Your task to perform on an android device: install app "Grab" Image 0: 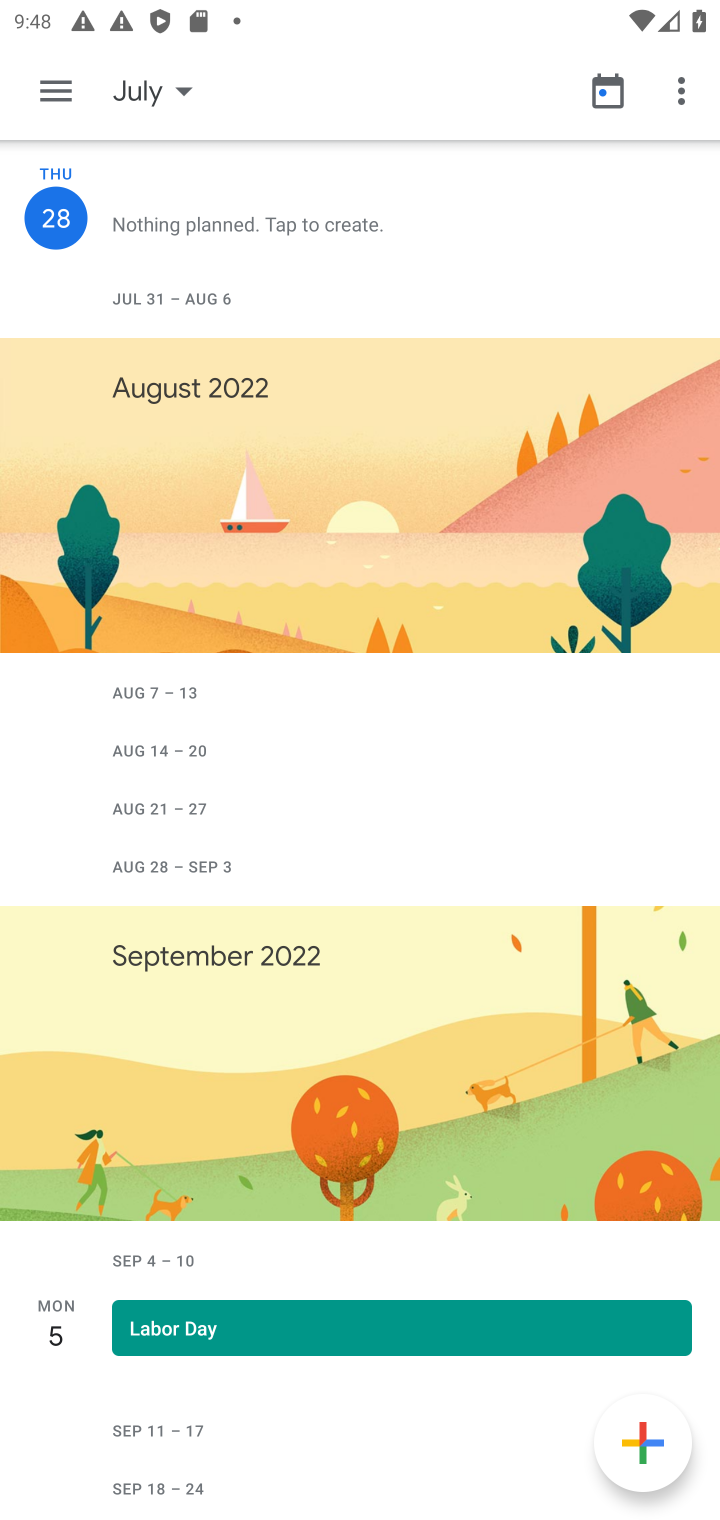
Step 0: press home button
Your task to perform on an android device: install app "Grab" Image 1: 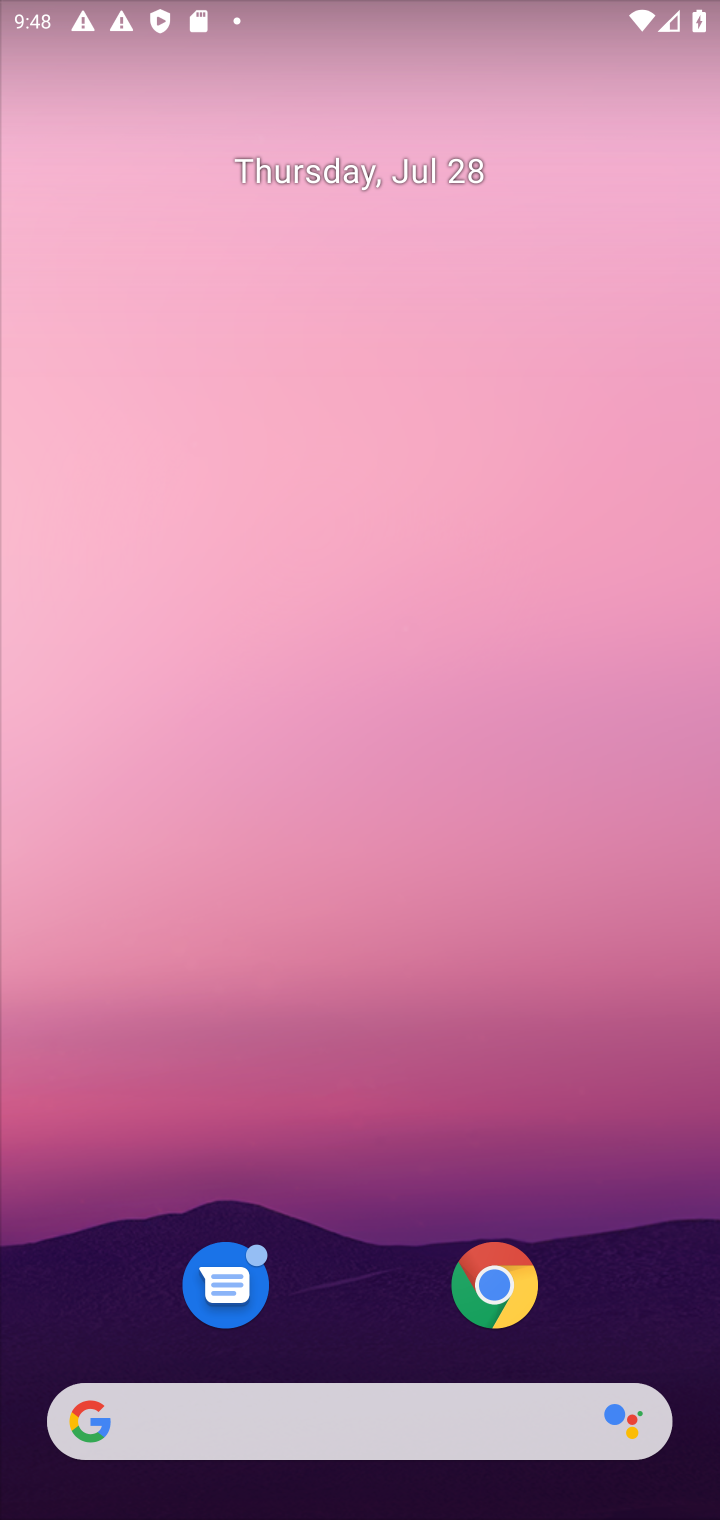
Step 1: drag from (439, 594) to (296, 27)
Your task to perform on an android device: install app "Grab" Image 2: 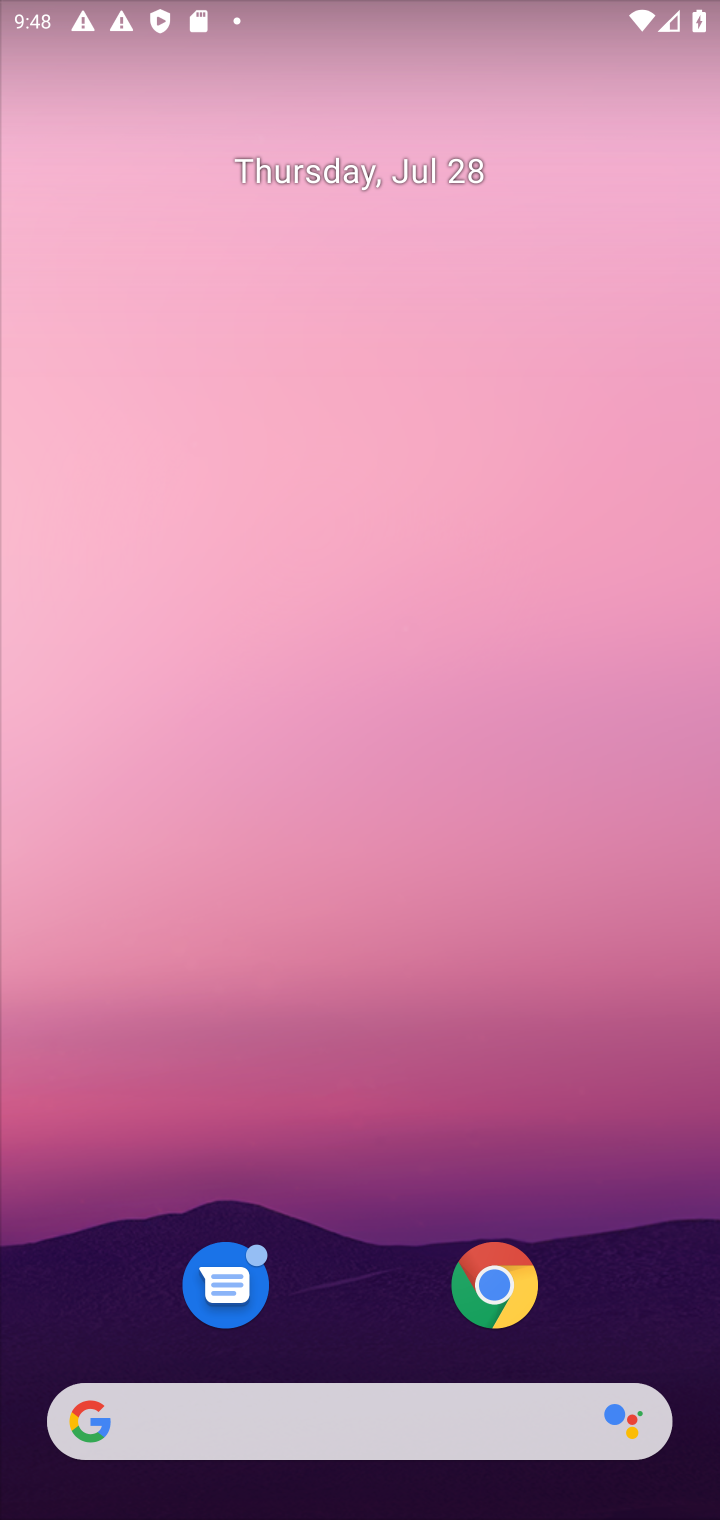
Step 2: drag from (401, 995) to (419, 4)
Your task to perform on an android device: install app "Grab" Image 3: 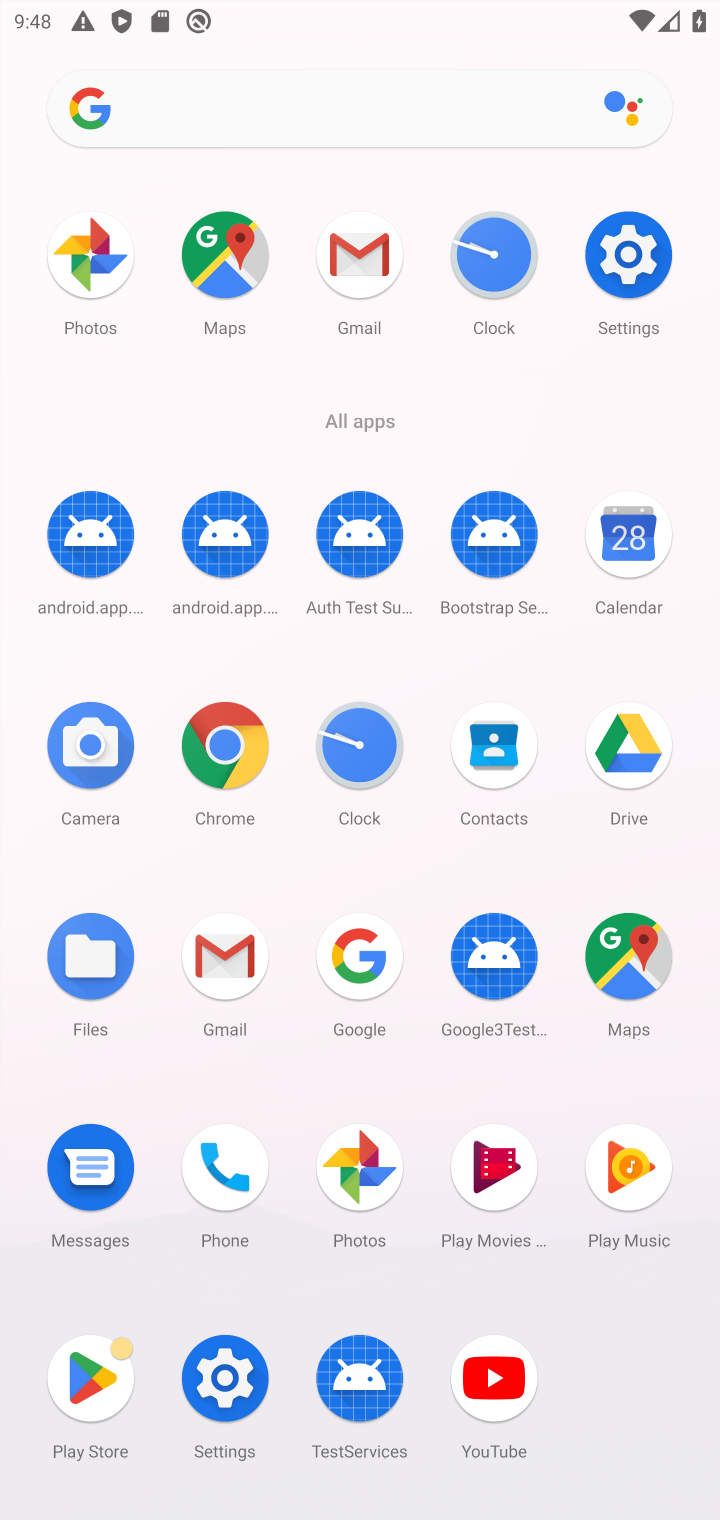
Step 3: click (88, 1376)
Your task to perform on an android device: install app "Grab" Image 4: 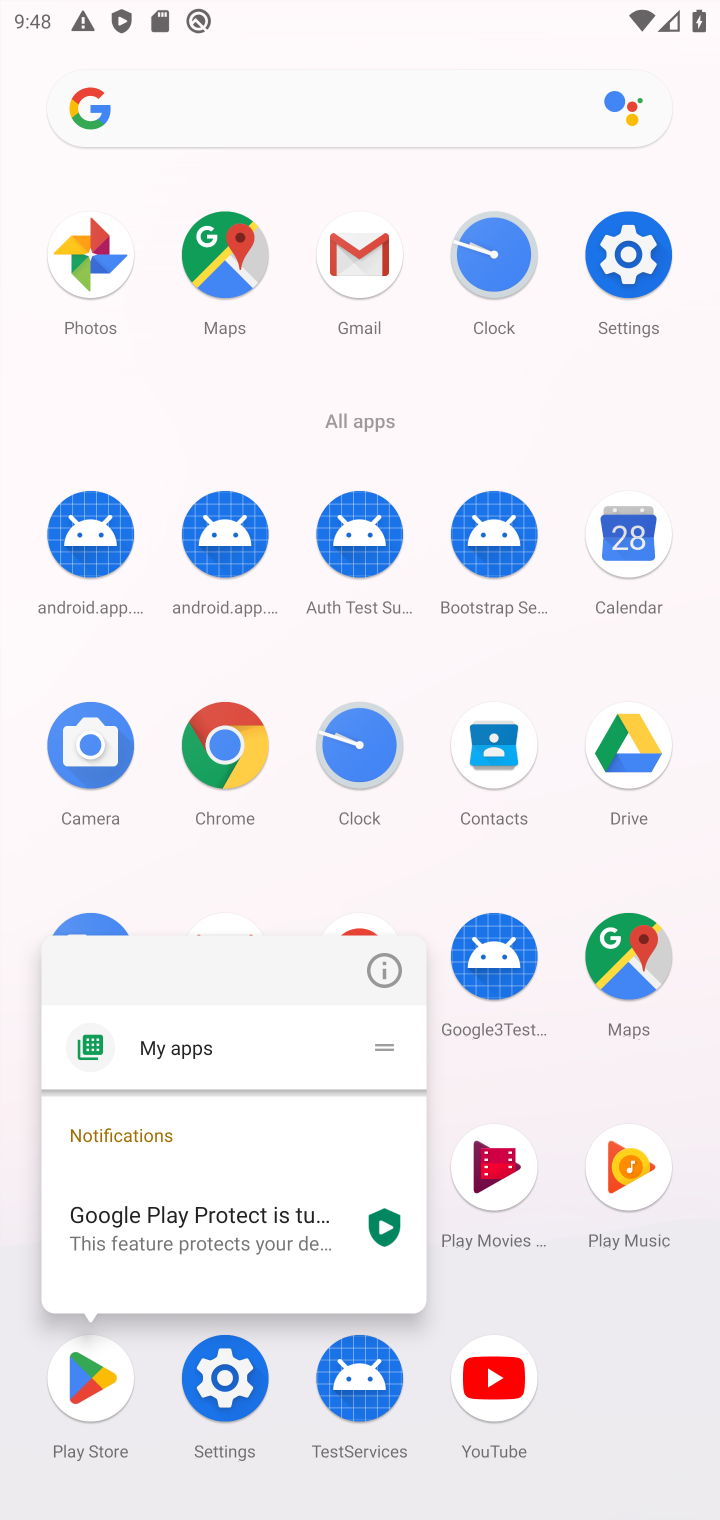
Step 4: click (88, 1364)
Your task to perform on an android device: install app "Grab" Image 5: 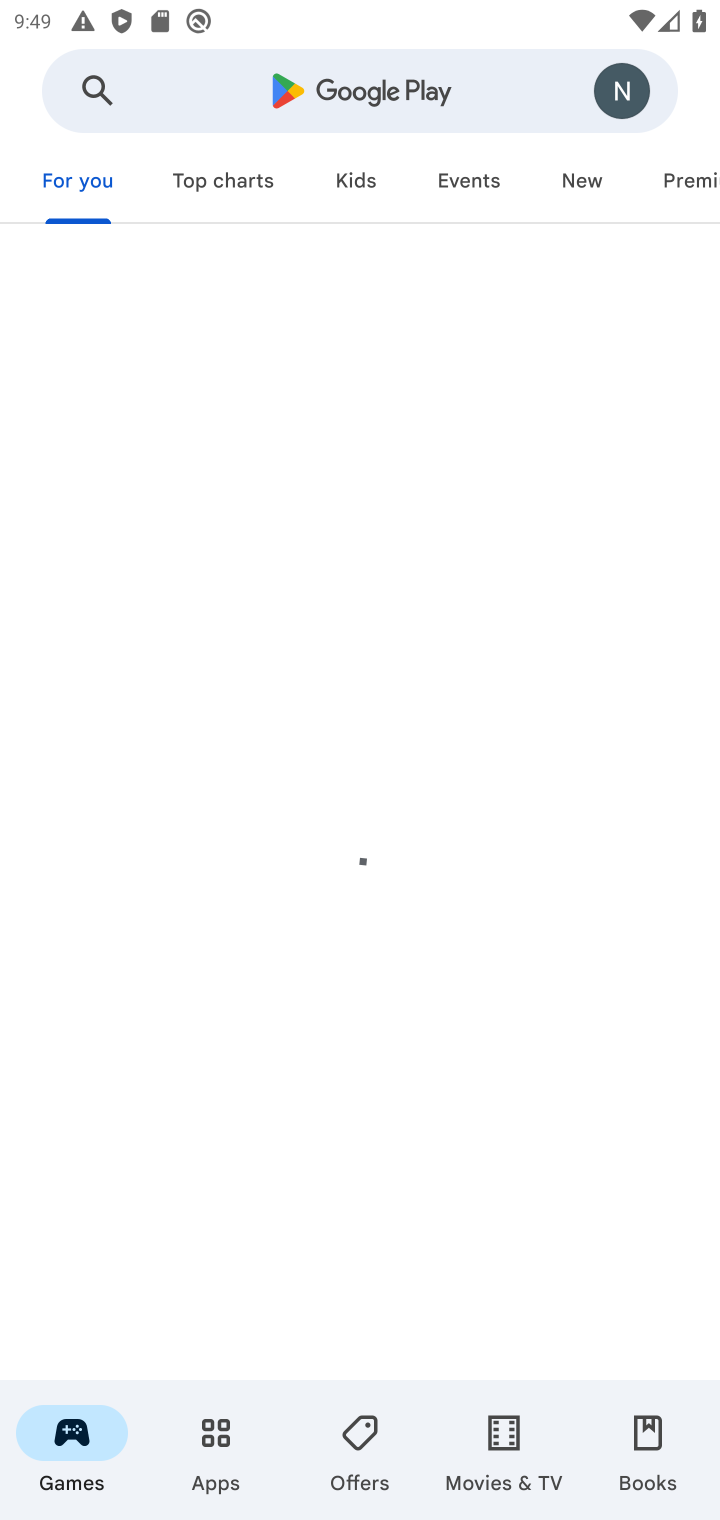
Step 5: click (372, 83)
Your task to perform on an android device: install app "Grab" Image 6: 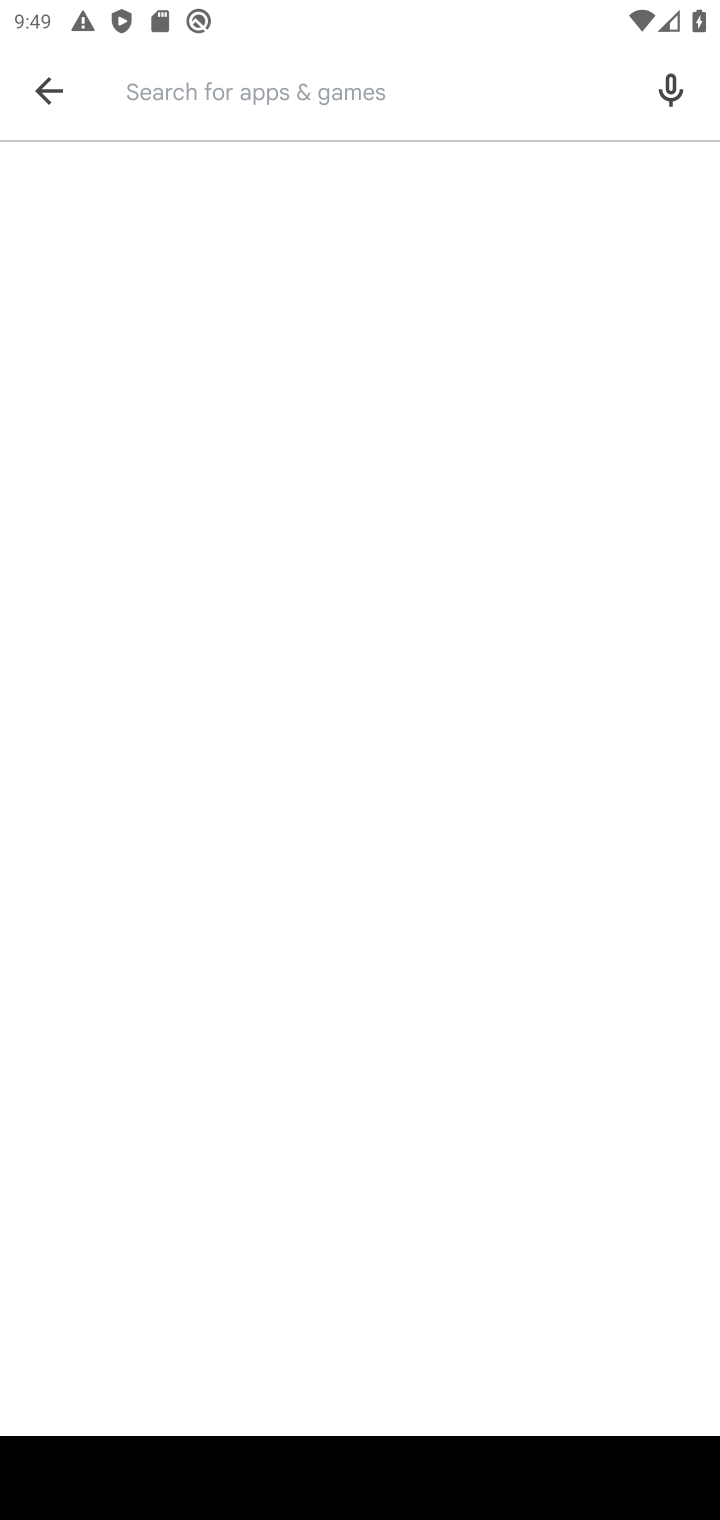
Step 6: type "Grab"
Your task to perform on an android device: install app "Grab" Image 7: 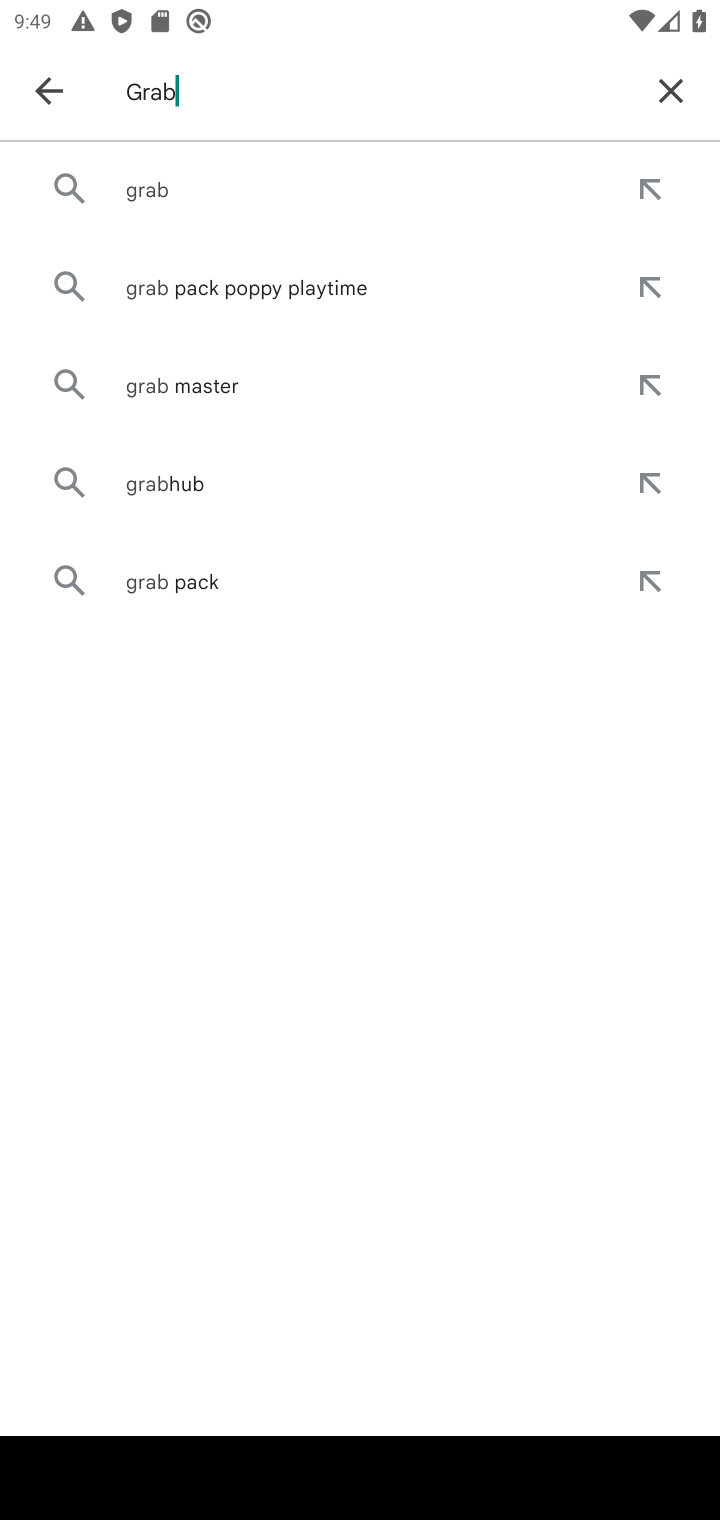
Step 7: press enter
Your task to perform on an android device: install app "Grab" Image 8: 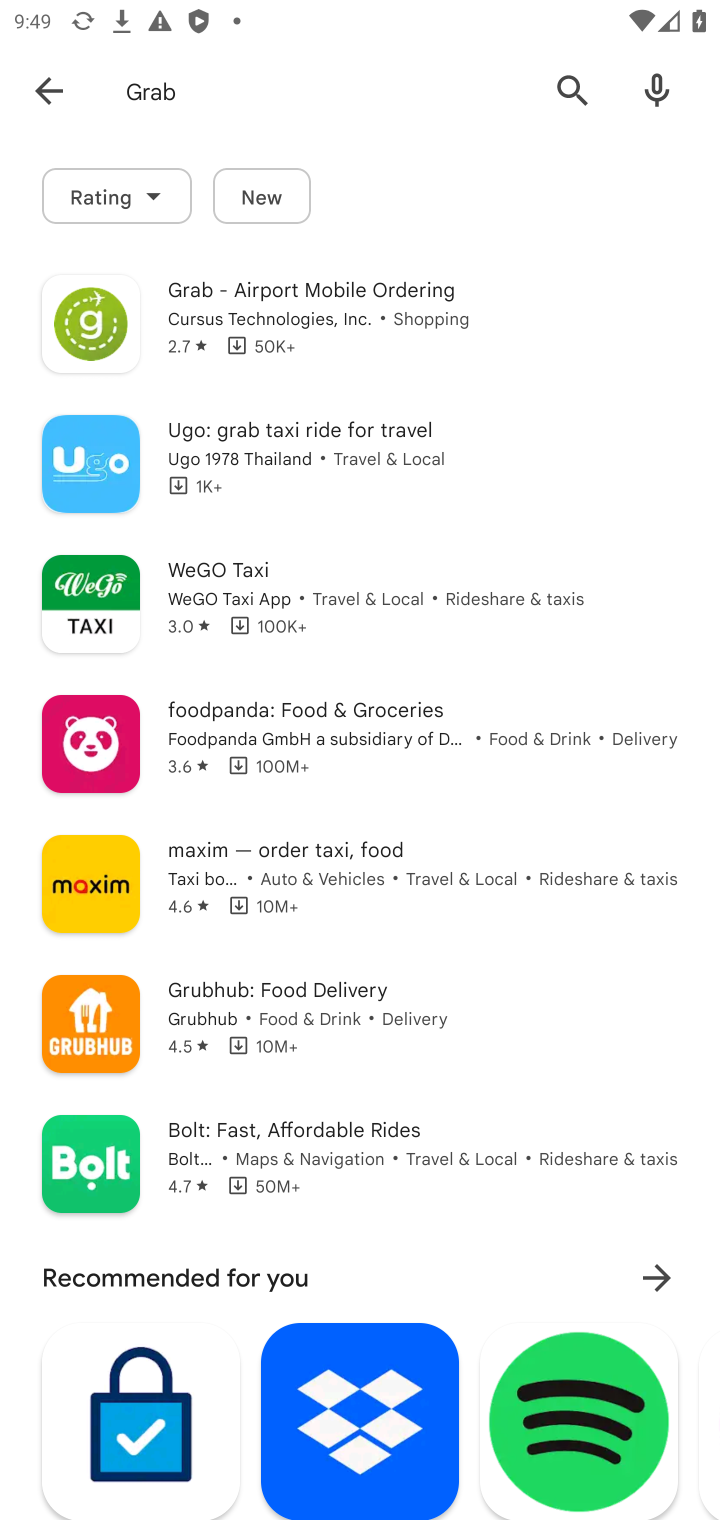
Step 8: click (282, 323)
Your task to perform on an android device: install app "Grab" Image 9: 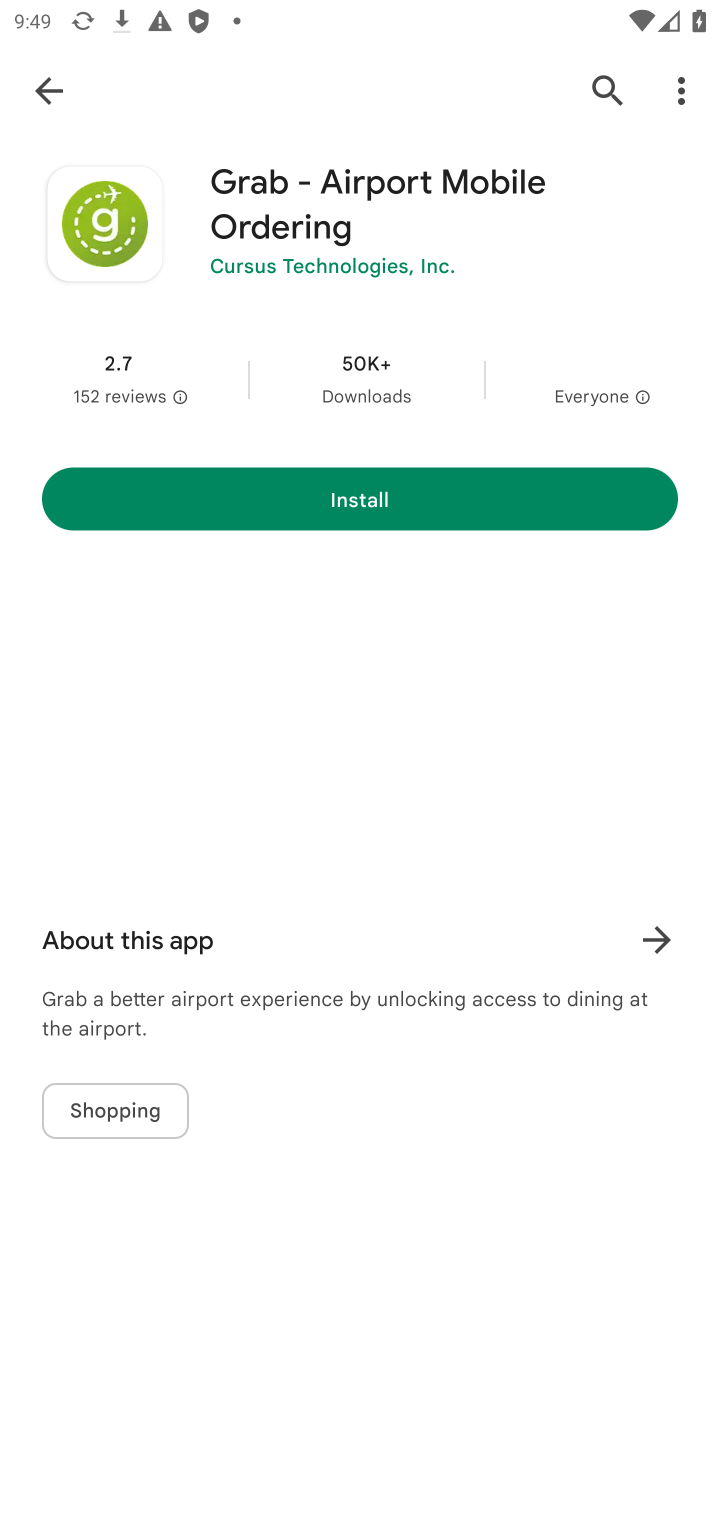
Step 9: click (466, 495)
Your task to perform on an android device: install app "Grab" Image 10: 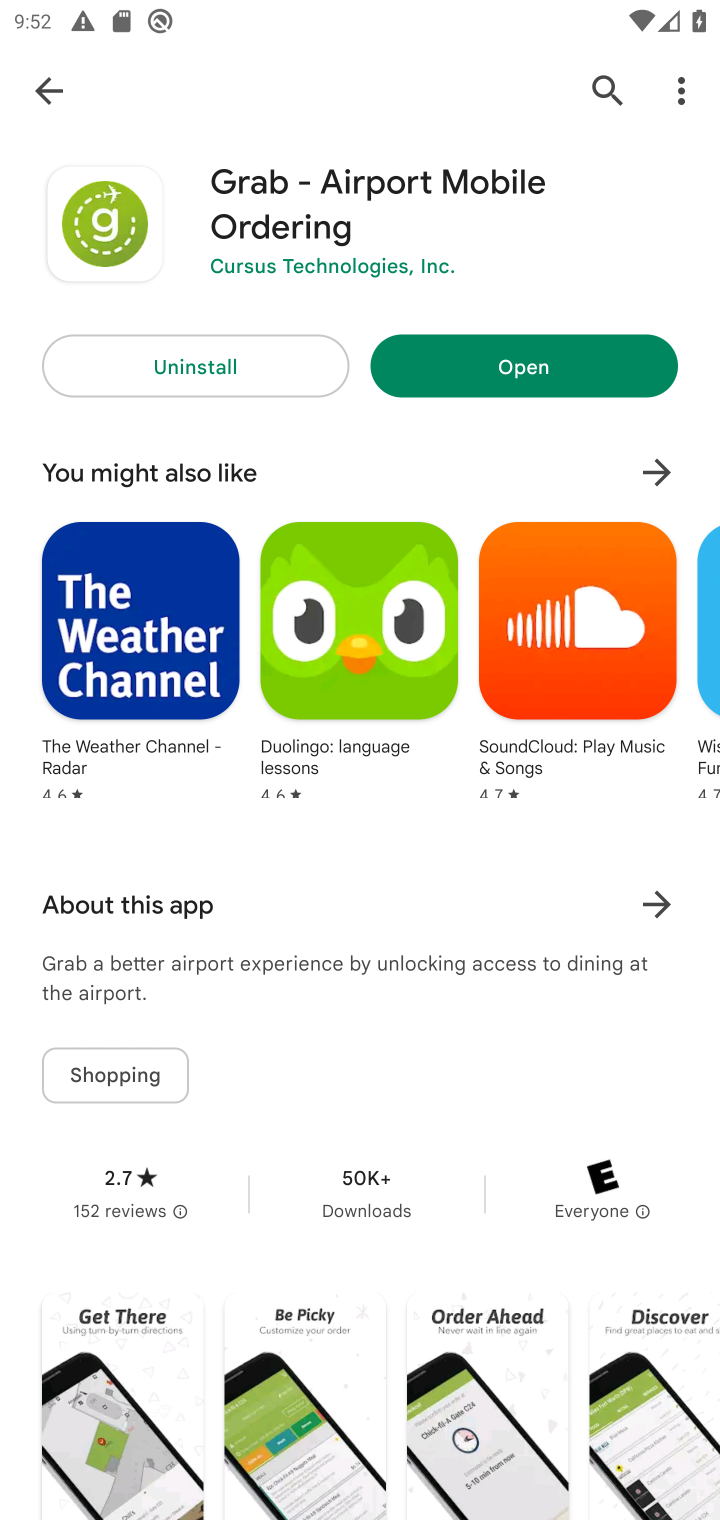
Step 10: task complete